Your task to perform on an android device: Open Google Image 0: 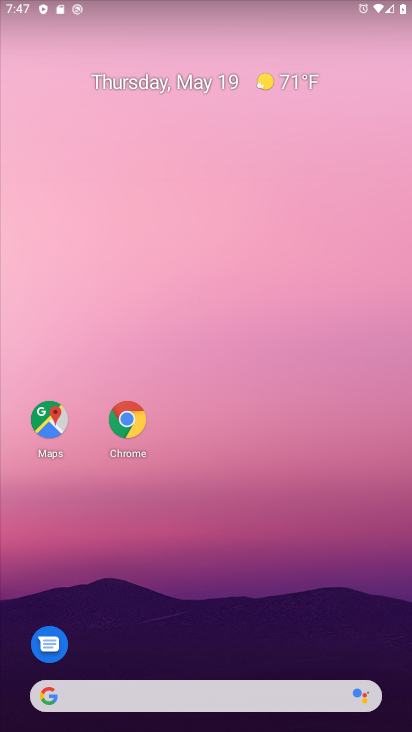
Step 0: click (168, 351)
Your task to perform on an android device: Open Google Image 1: 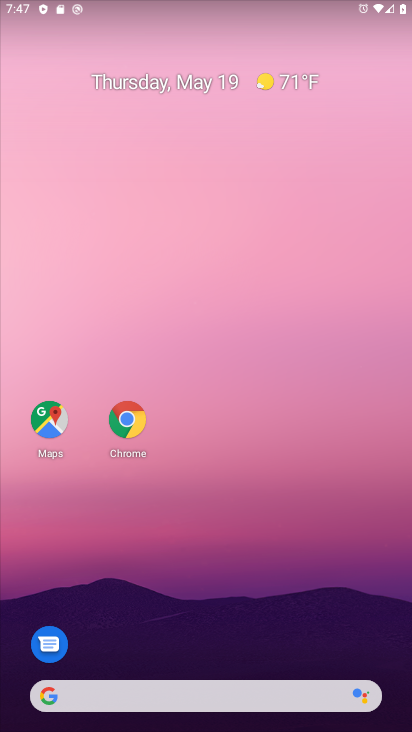
Step 1: drag from (174, 486) to (168, 360)
Your task to perform on an android device: Open Google Image 2: 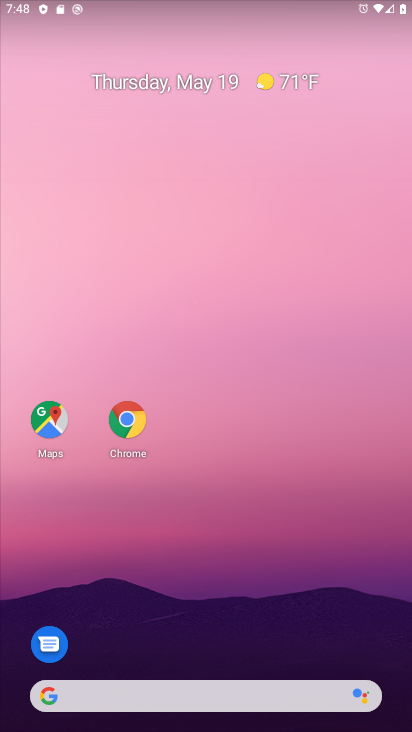
Step 2: drag from (123, 624) to (123, 297)
Your task to perform on an android device: Open Google Image 3: 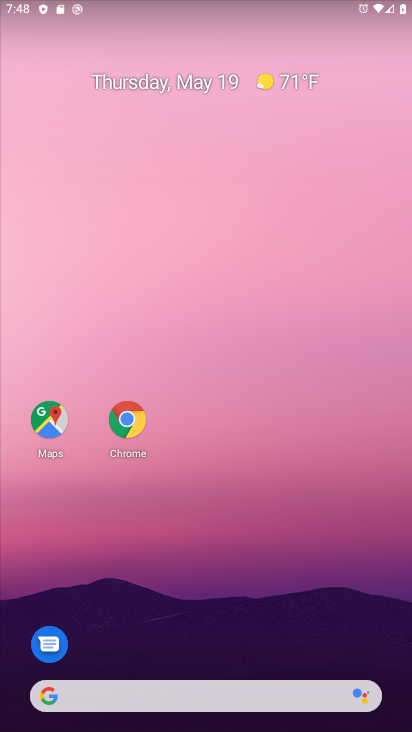
Step 3: drag from (137, 685) to (196, 236)
Your task to perform on an android device: Open Google Image 4: 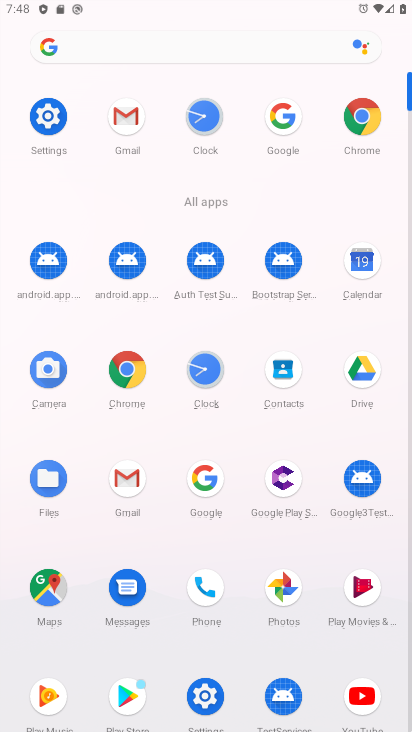
Step 4: click (200, 475)
Your task to perform on an android device: Open Google Image 5: 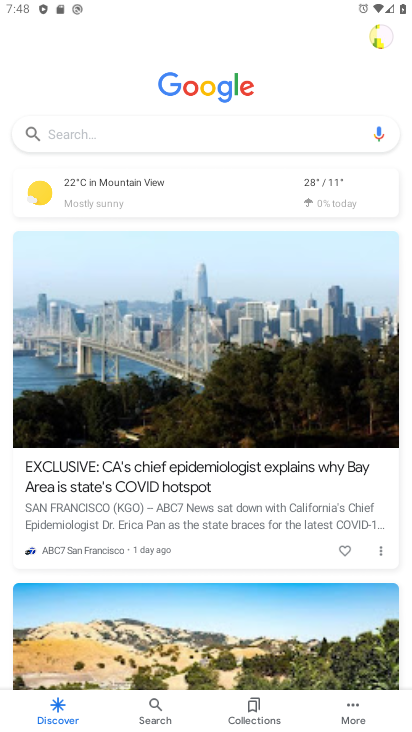
Step 5: task complete